Your task to perform on an android device: turn off airplane mode Image 0: 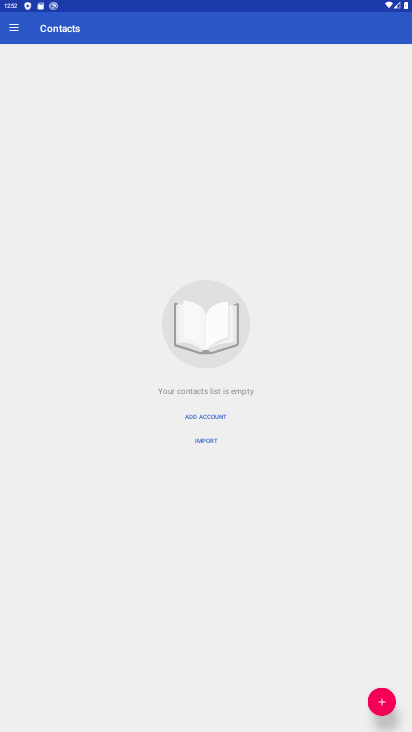
Step 0: press home button
Your task to perform on an android device: turn off airplane mode Image 1: 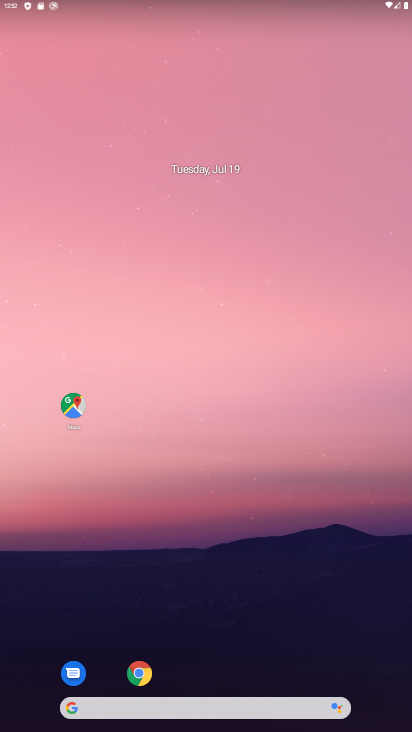
Step 1: drag from (193, 703) to (204, 20)
Your task to perform on an android device: turn off airplane mode Image 2: 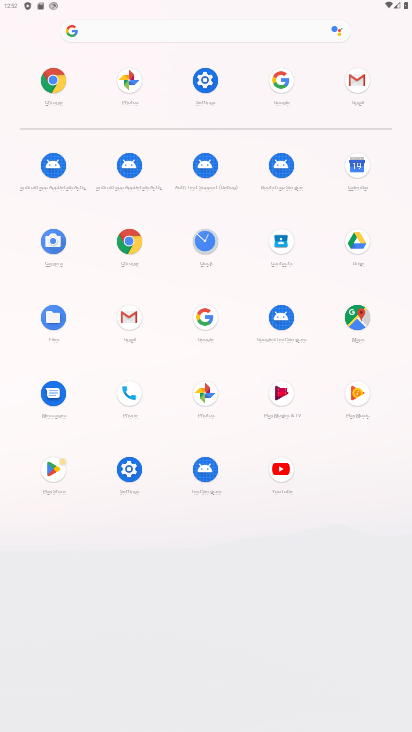
Step 2: click (130, 477)
Your task to perform on an android device: turn off airplane mode Image 3: 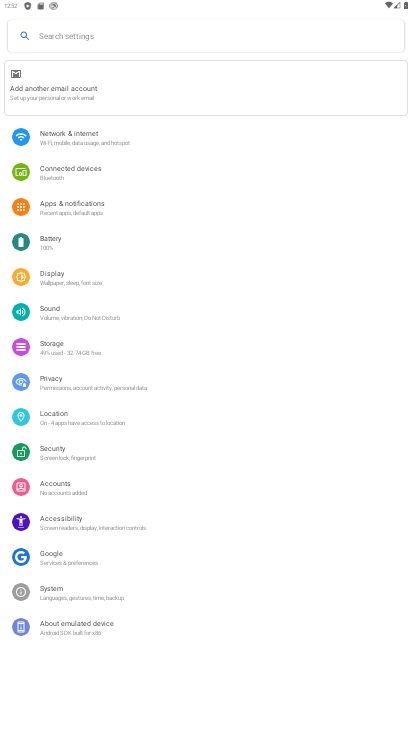
Step 3: click (88, 136)
Your task to perform on an android device: turn off airplane mode Image 4: 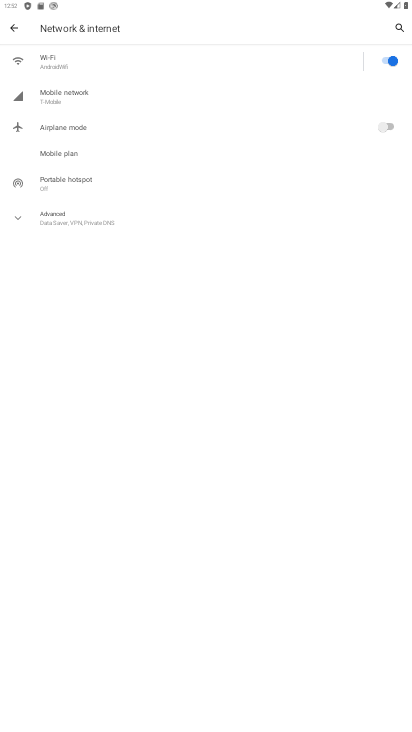
Step 4: task complete